Your task to perform on an android device: Empty the shopping cart on bestbuy.com. Add razer thresher to the cart on bestbuy.com, then select checkout. Image 0: 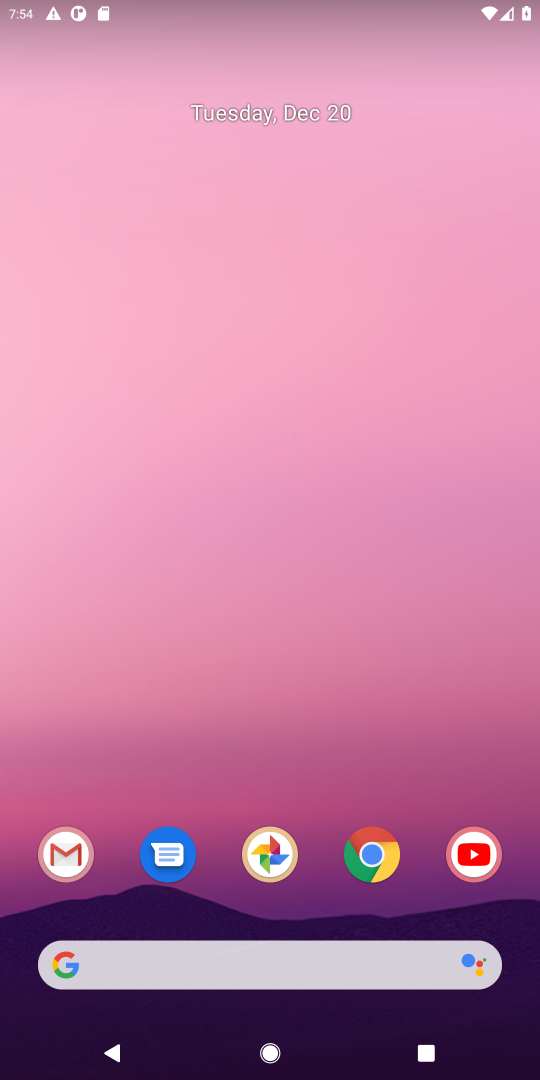
Step 0: click (377, 872)
Your task to perform on an android device: Empty the shopping cart on bestbuy.com. Add razer thresher to the cart on bestbuy.com, then select checkout. Image 1: 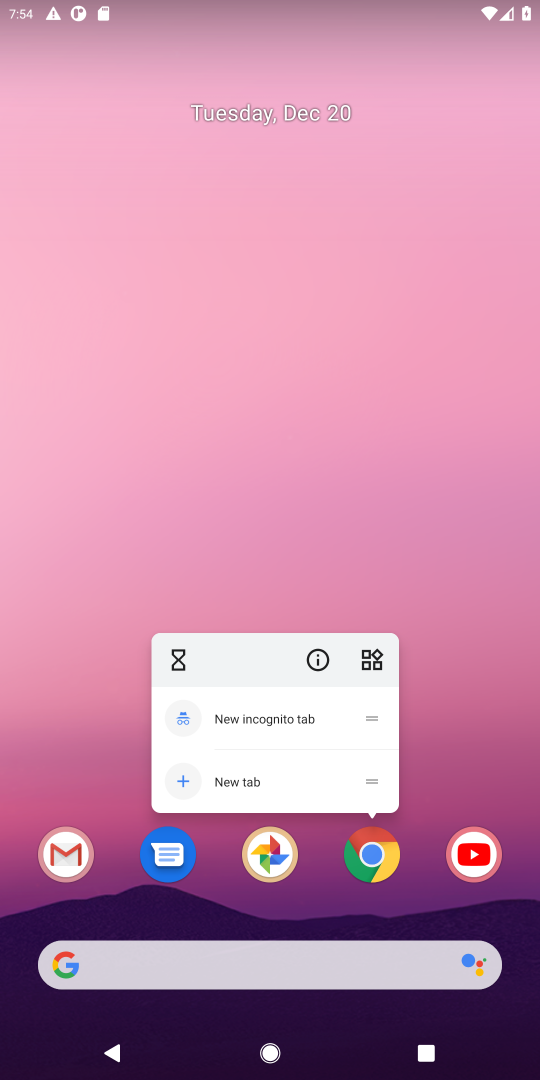
Step 1: click (376, 870)
Your task to perform on an android device: Empty the shopping cart on bestbuy.com. Add razer thresher to the cart on bestbuy.com, then select checkout. Image 2: 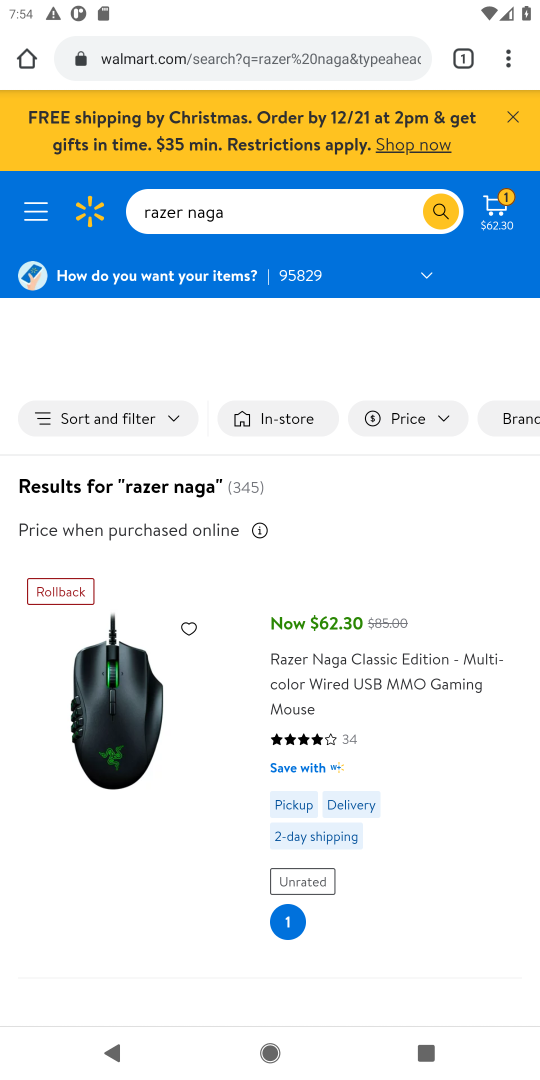
Step 2: click (198, 63)
Your task to perform on an android device: Empty the shopping cart on bestbuy.com. Add razer thresher to the cart on bestbuy.com, then select checkout. Image 3: 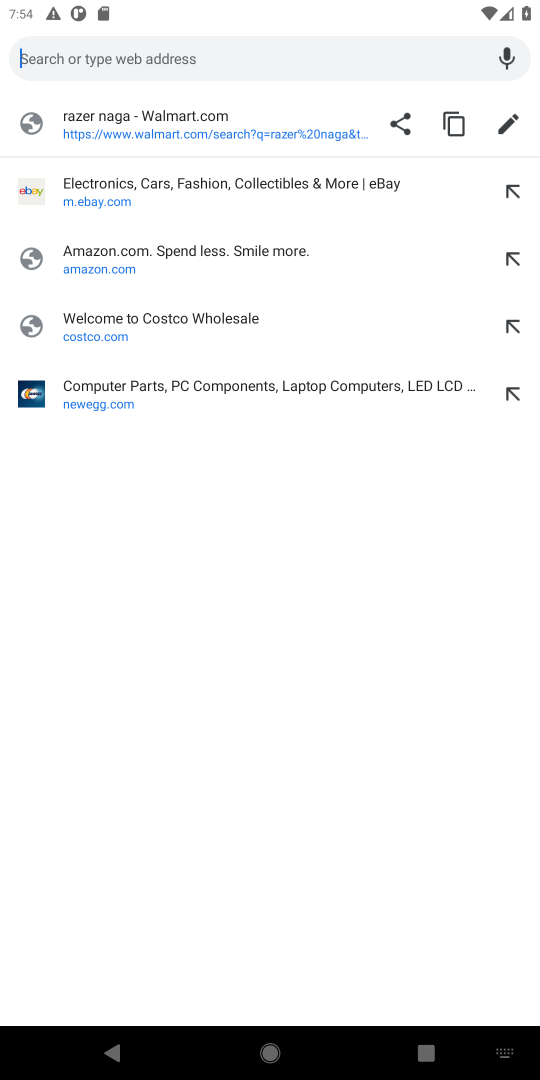
Step 3: type "bestbuy.com"
Your task to perform on an android device: Empty the shopping cart on bestbuy.com. Add razer thresher to the cart on bestbuy.com, then select checkout. Image 4: 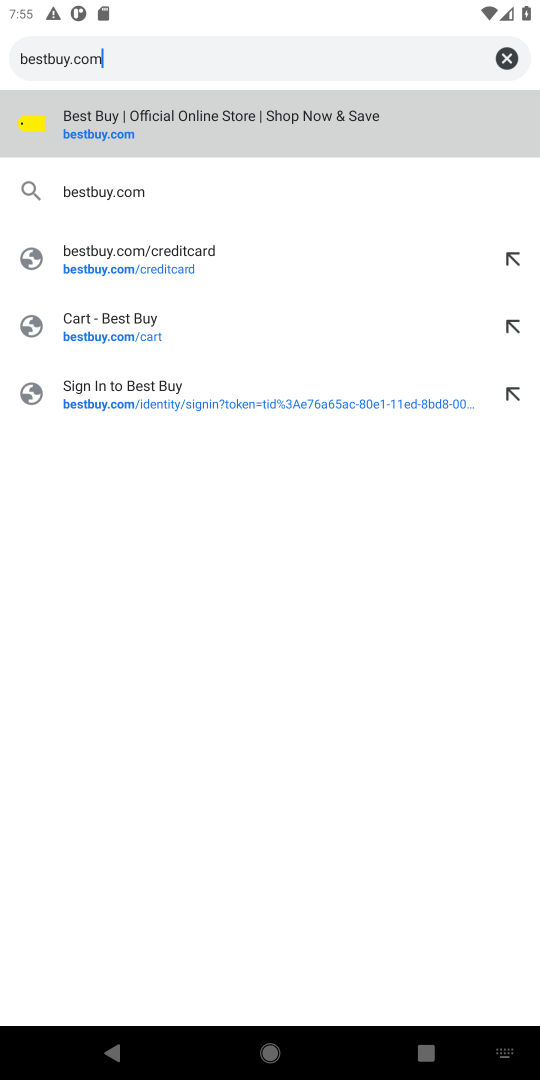
Step 4: click (102, 124)
Your task to perform on an android device: Empty the shopping cart on bestbuy.com. Add razer thresher to the cart on bestbuy.com, then select checkout. Image 5: 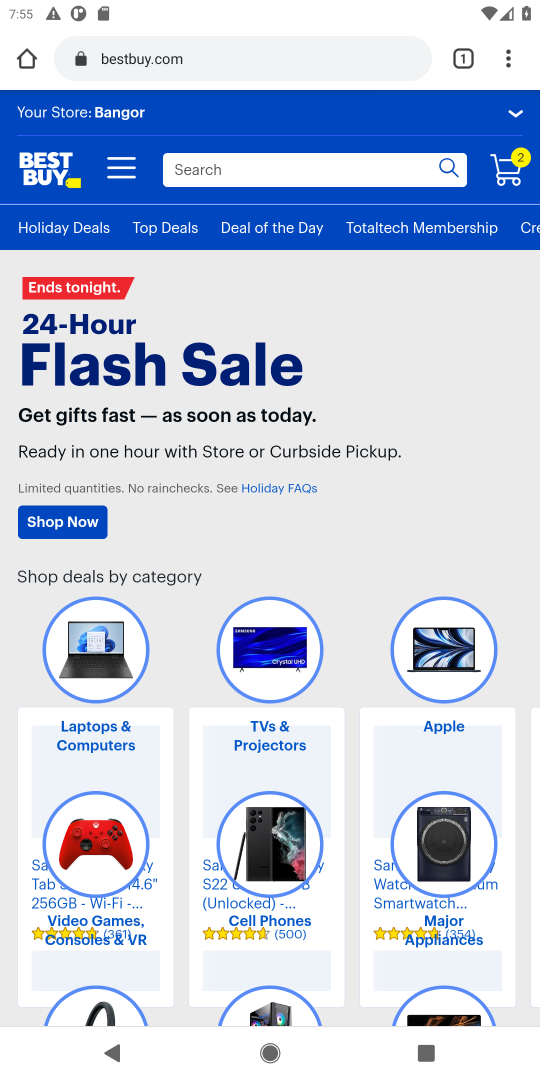
Step 5: click (510, 186)
Your task to perform on an android device: Empty the shopping cart on bestbuy.com. Add razer thresher to the cart on bestbuy.com, then select checkout. Image 6: 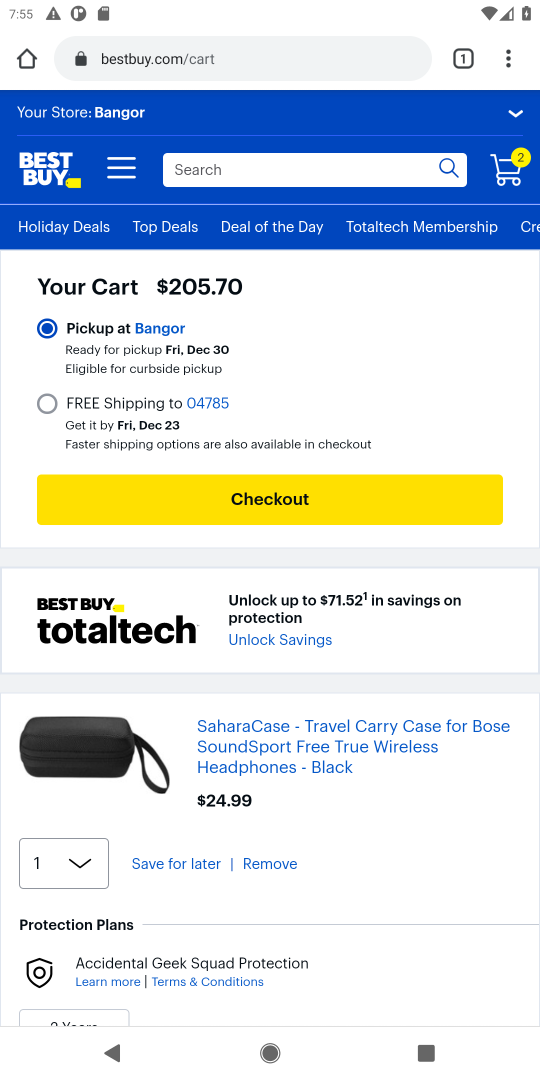
Step 6: click (269, 871)
Your task to perform on an android device: Empty the shopping cart on bestbuy.com. Add razer thresher to the cart on bestbuy.com, then select checkout. Image 7: 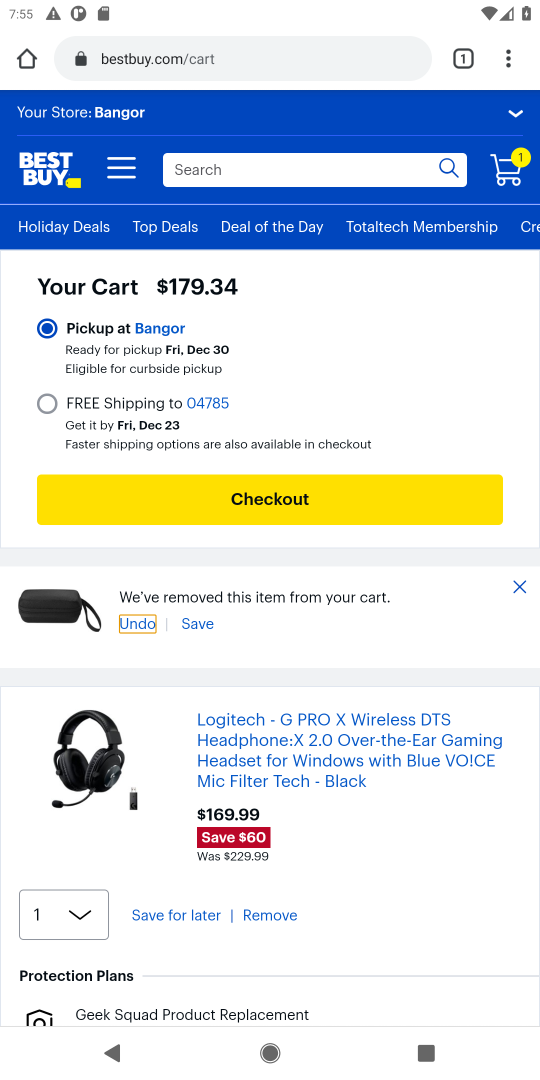
Step 7: click (274, 916)
Your task to perform on an android device: Empty the shopping cart on bestbuy.com. Add razer thresher to the cart on bestbuy.com, then select checkout. Image 8: 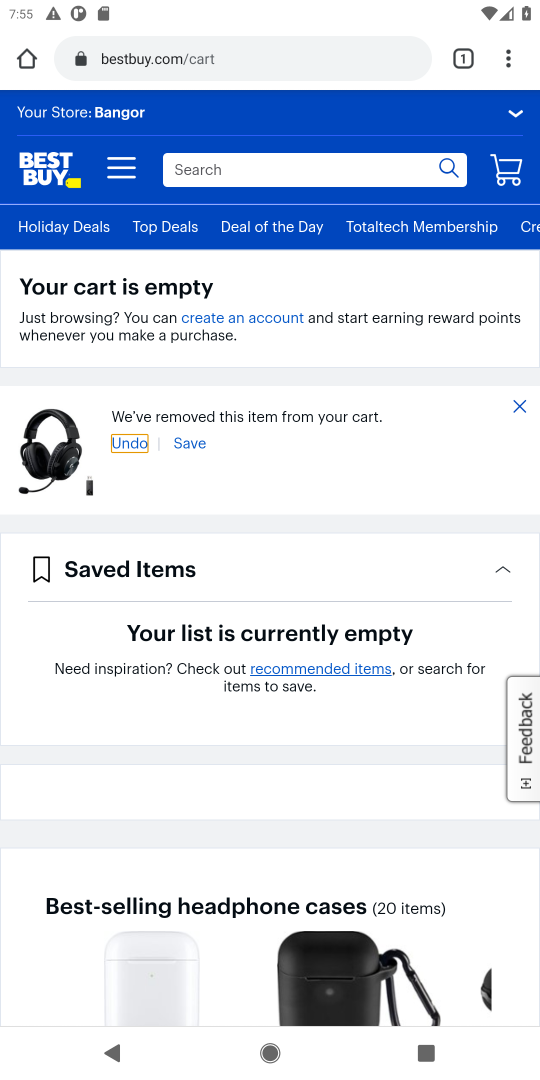
Step 8: click (232, 176)
Your task to perform on an android device: Empty the shopping cart on bestbuy.com. Add razer thresher to the cart on bestbuy.com, then select checkout. Image 9: 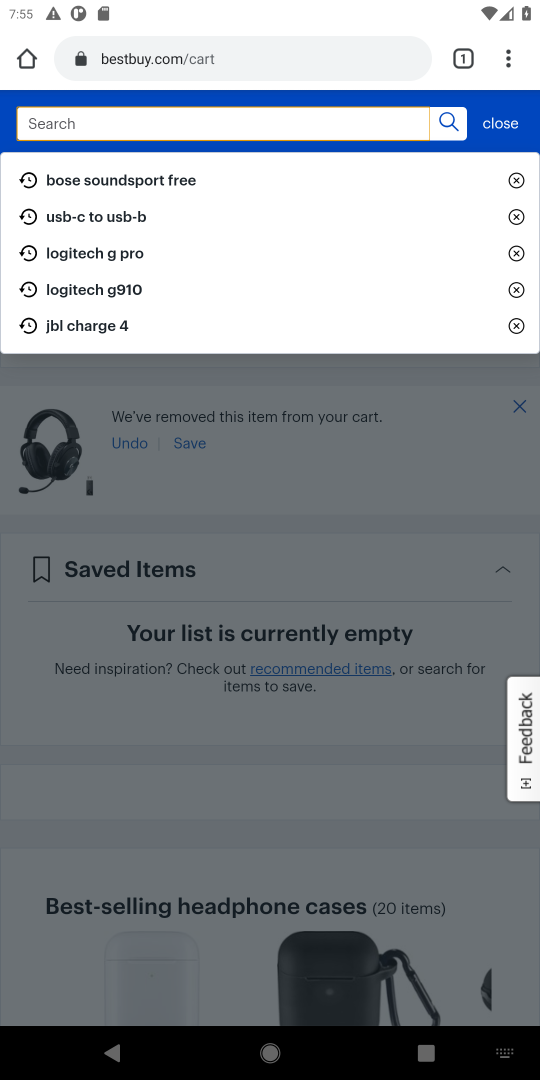
Step 9: type "razer thresher"
Your task to perform on an android device: Empty the shopping cart on bestbuy.com. Add razer thresher to the cart on bestbuy.com, then select checkout. Image 10: 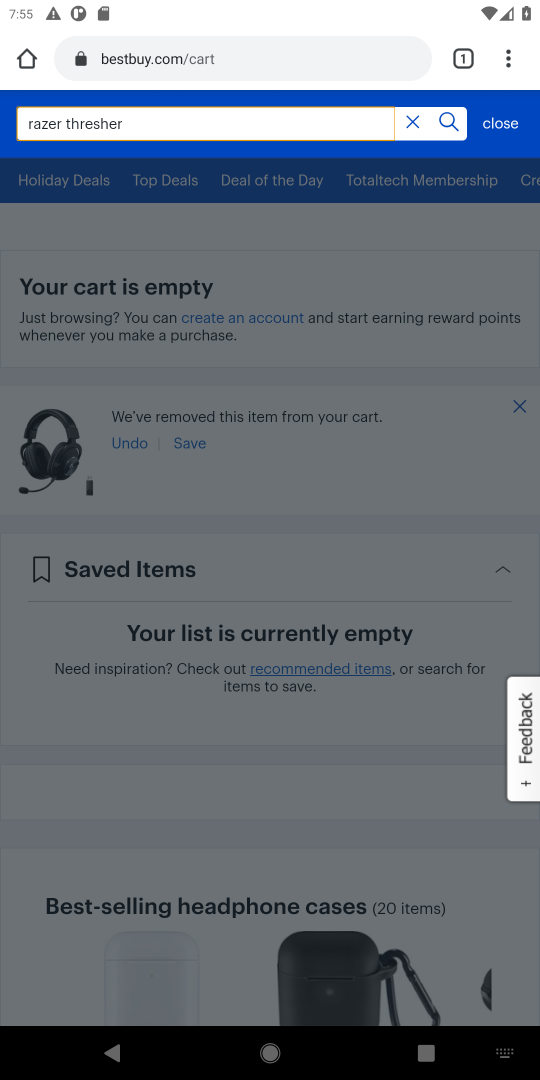
Step 10: click (444, 124)
Your task to perform on an android device: Empty the shopping cart on bestbuy.com. Add razer thresher to the cart on bestbuy.com, then select checkout. Image 11: 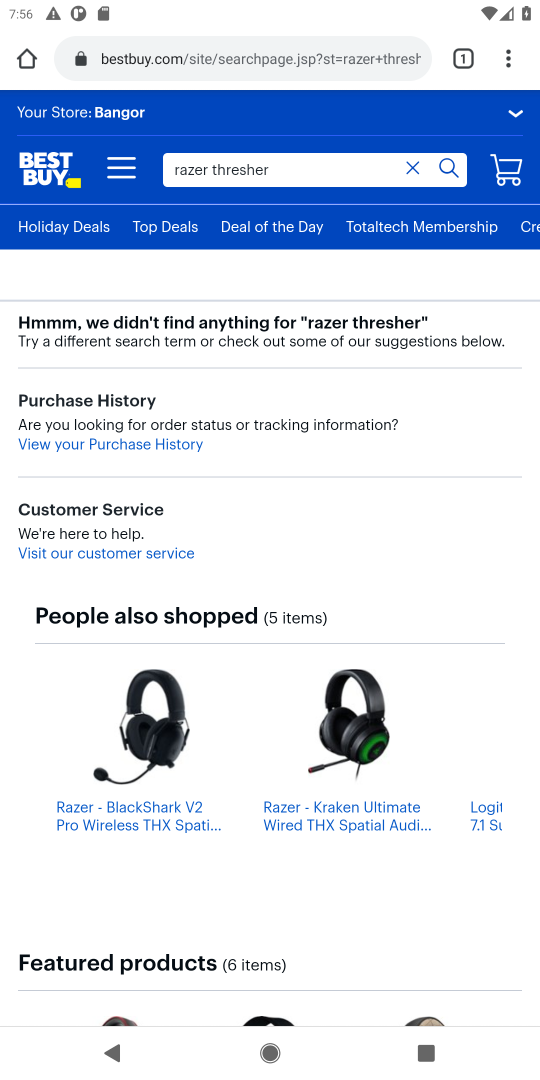
Step 11: task complete